Your task to perform on an android device: Go to wifi settings Image 0: 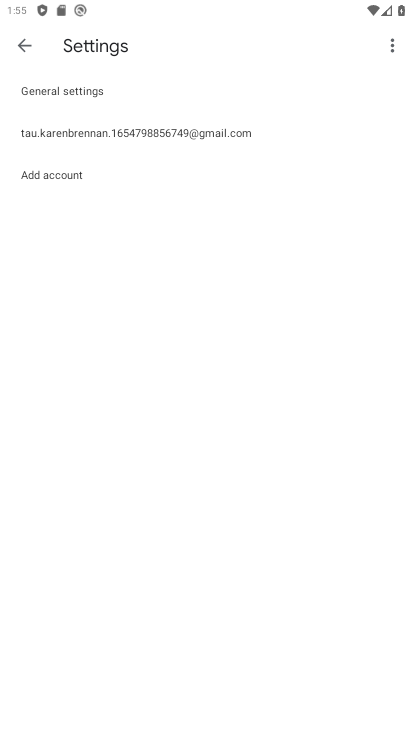
Step 0: press home button
Your task to perform on an android device: Go to wifi settings Image 1: 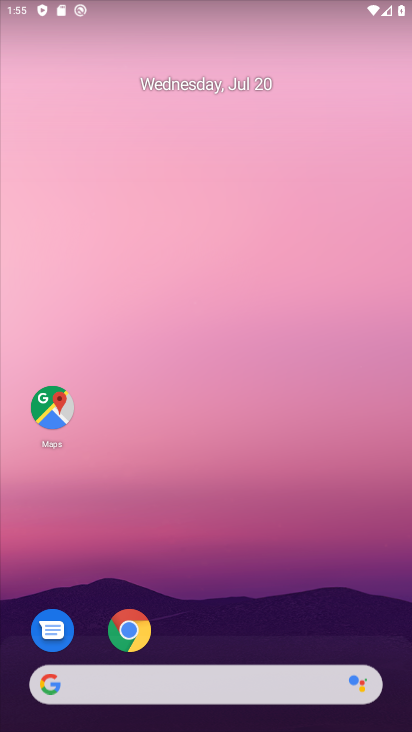
Step 1: drag from (320, 565) to (296, 80)
Your task to perform on an android device: Go to wifi settings Image 2: 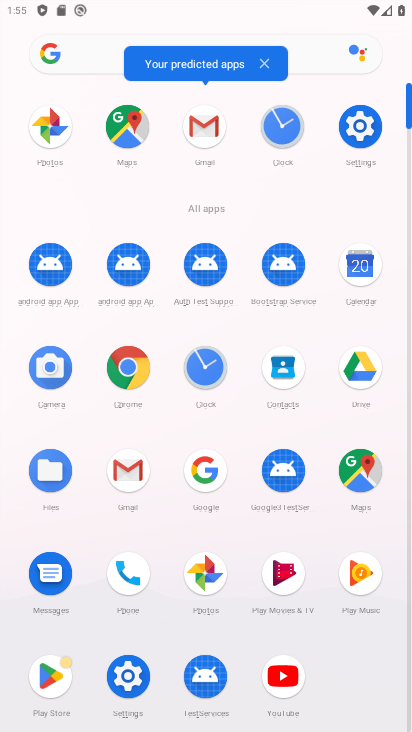
Step 2: click (376, 131)
Your task to perform on an android device: Go to wifi settings Image 3: 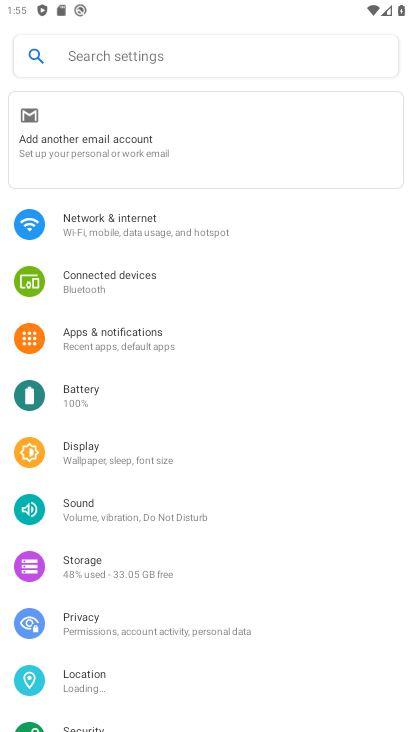
Step 3: click (148, 234)
Your task to perform on an android device: Go to wifi settings Image 4: 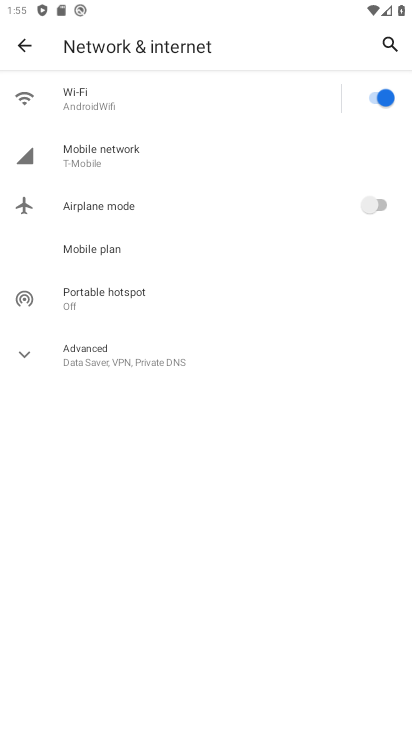
Step 4: click (247, 94)
Your task to perform on an android device: Go to wifi settings Image 5: 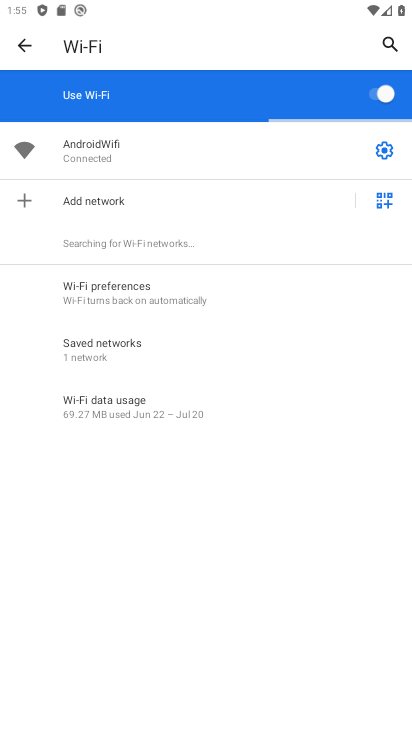
Step 5: task complete